Your task to perform on an android device: check android version Image 0: 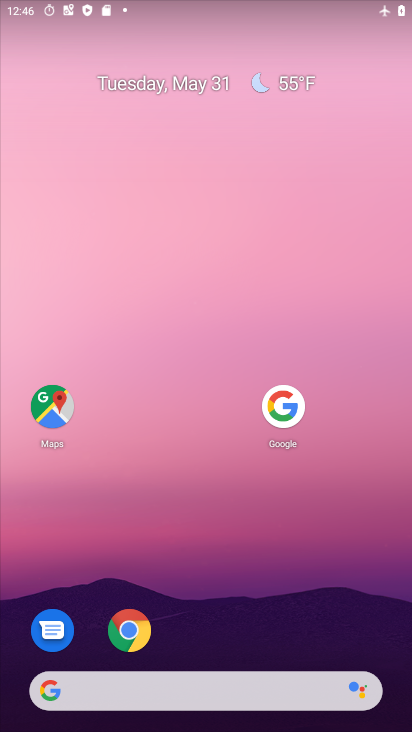
Step 0: drag from (182, 638) to (396, 102)
Your task to perform on an android device: check android version Image 1: 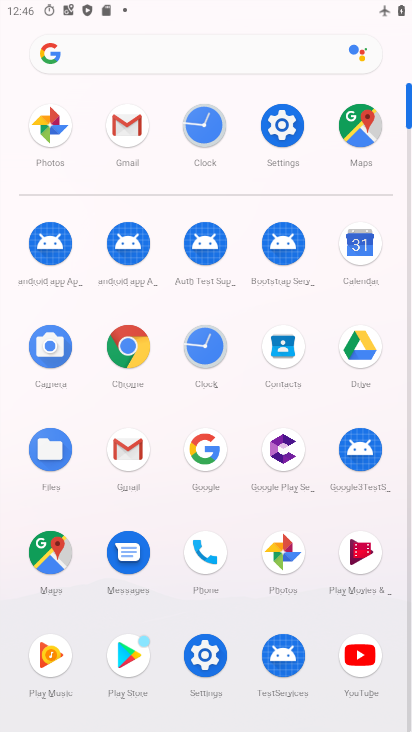
Step 1: click (217, 656)
Your task to perform on an android device: check android version Image 2: 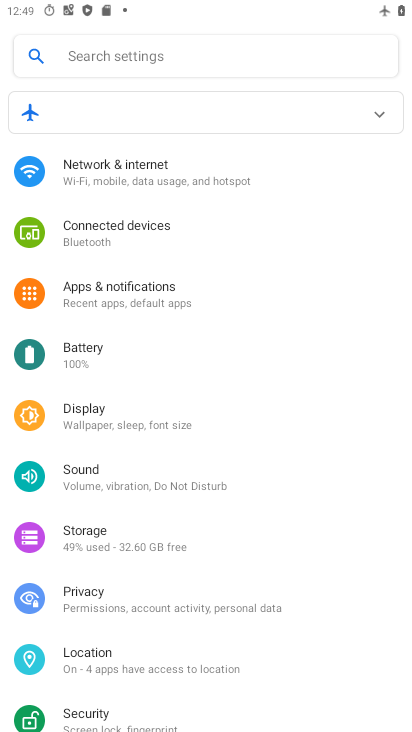
Step 2: drag from (328, 627) to (397, 280)
Your task to perform on an android device: check android version Image 3: 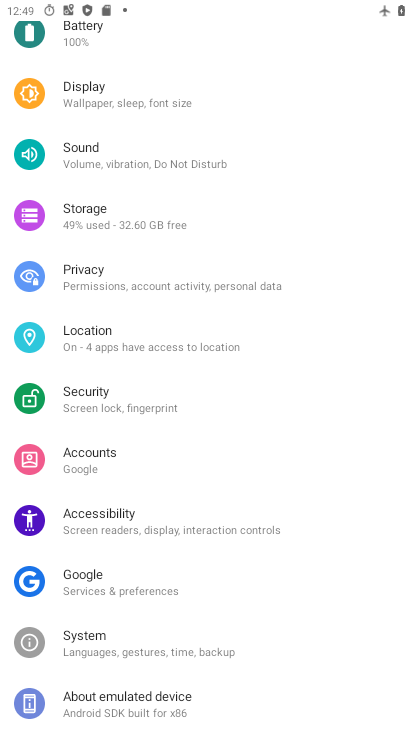
Step 3: drag from (270, 630) to (294, 306)
Your task to perform on an android device: check android version Image 4: 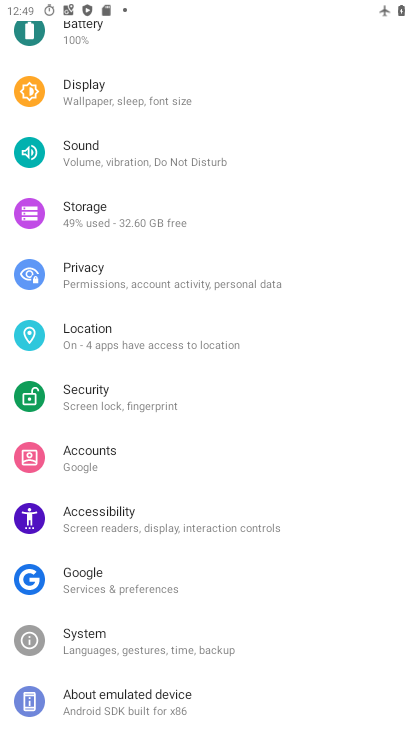
Step 4: click (104, 695)
Your task to perform on an android device: check android version Image 5: 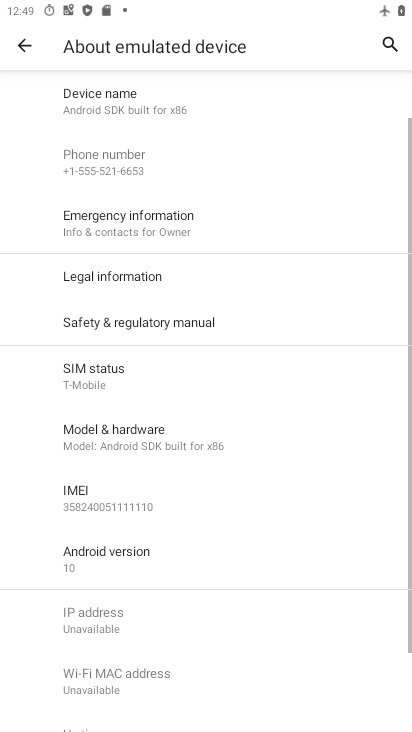
Step 5: click (78, 560)
Your task to perform on an android device: check android version Image 6: 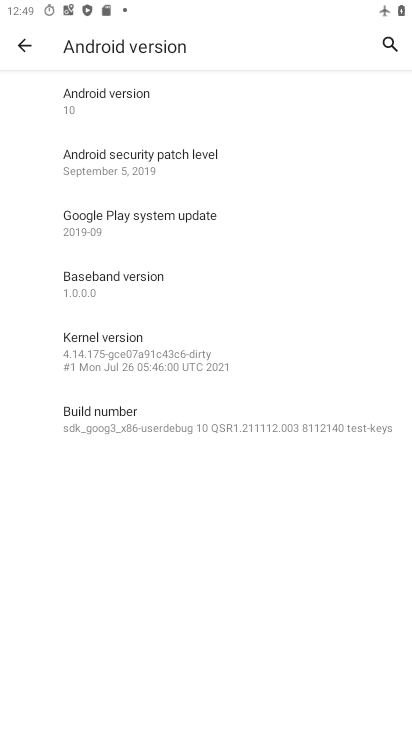
Step 6: task complete